Your task to perform on an android device: open chrome privacy settings Image 0: 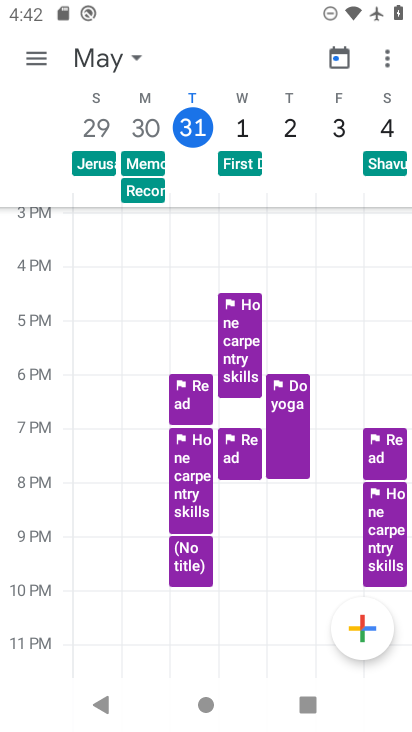
Step 0: press home button
Your task to perform on an android device: open chrome privacy settings Image 1: 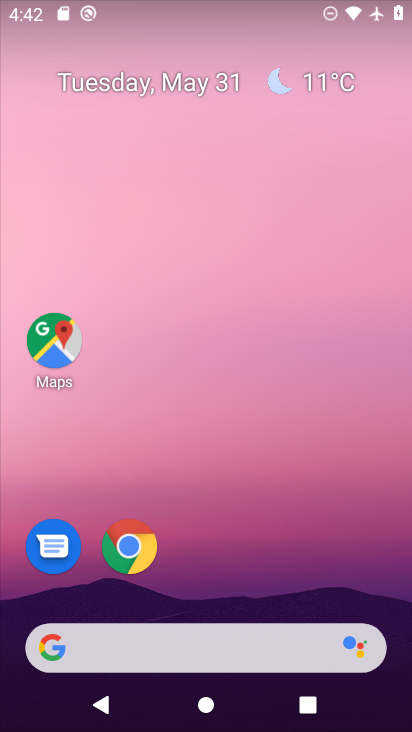
Step 1: click (128, 550)
Your task to perform on an android device: open chrome privacy settings Image 2: 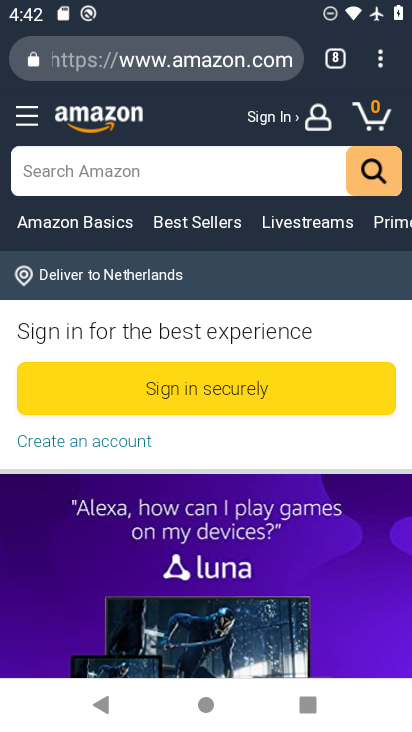
Step 2: click (342, 68)
Your task to perform on an android device: open chrome privacy settings Image 3: 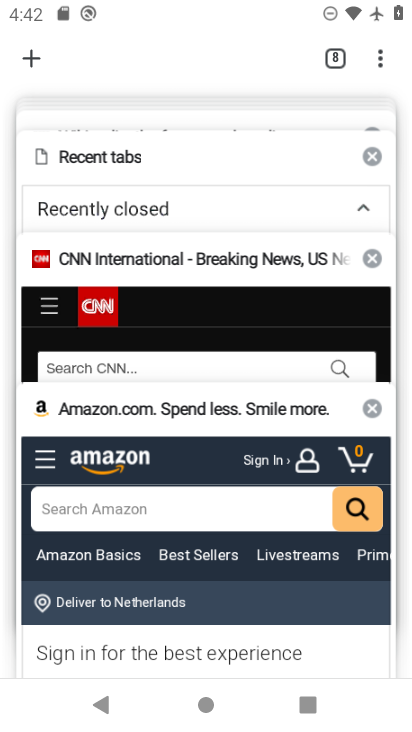
Step 3: click (340, 55)
Your task to perform on an android device: open chrome privacy settings Image 4: 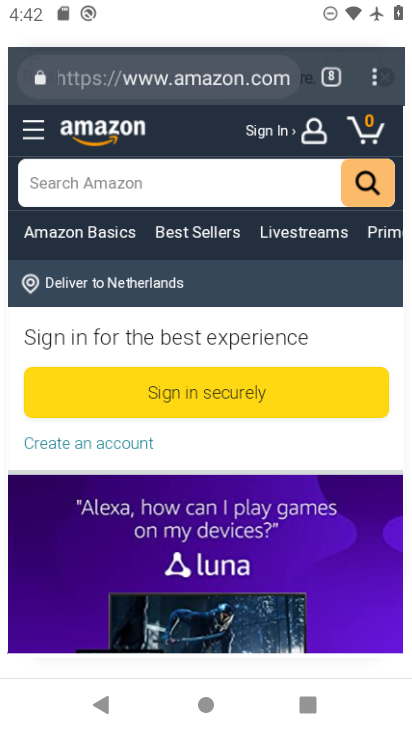
Step 4: click (370, 54)
Your task to perform on an android device: open chrome privacy settings Image 5: 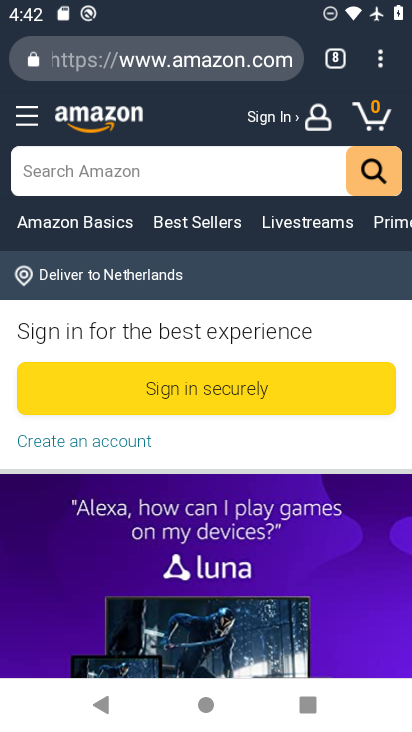
Step 5: click (379, 65)
Your task to perform on an android device: open chrome privacy settings Image 6: 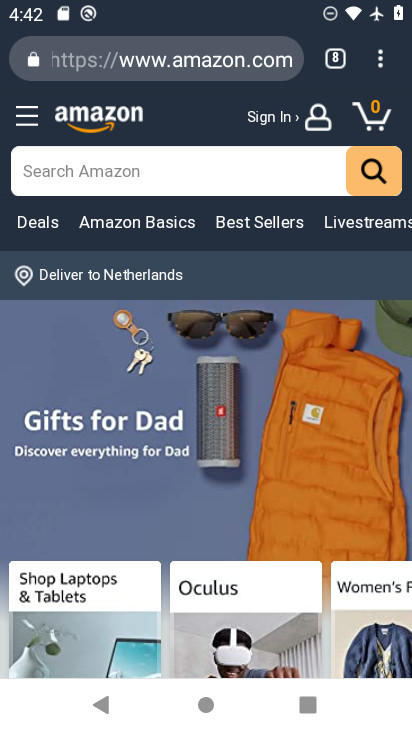
Step 6: click (385, 61)
Your task to perform on an android device: open chrome privacy settings Image 7: 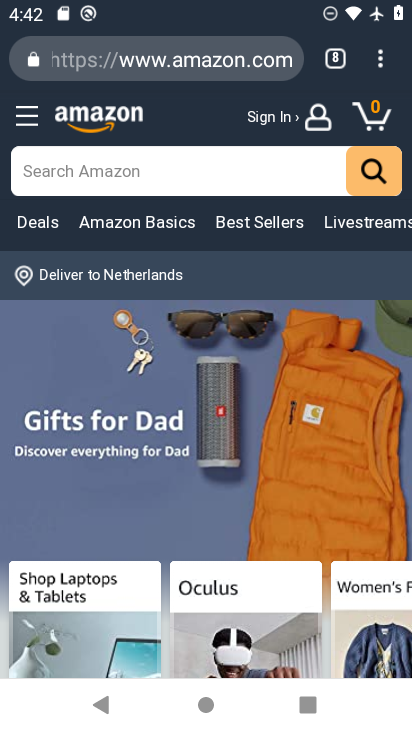
Step 7: click (388, 48)
Your task to perform on an android device: open chrome privacy settings Image 8: 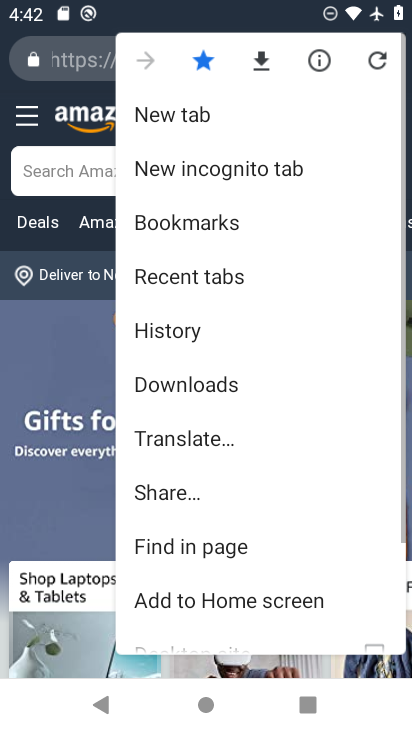
Step 8: drag from (239, 552) to (259, 106)
Your task to perform on an android device: open chrome privacy settings Image 9: 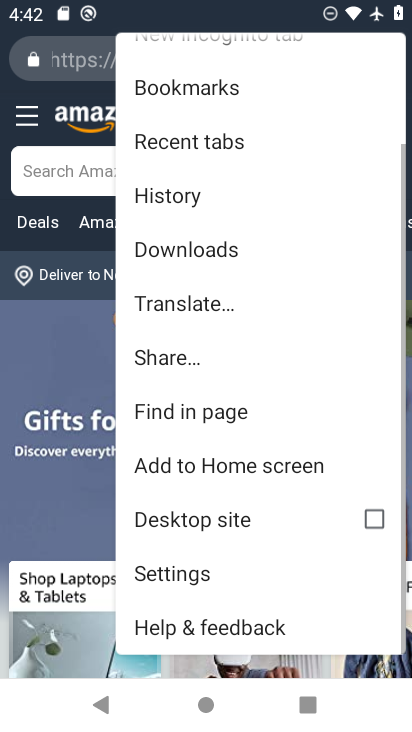
Step 9: click (233, 574)
Your task to perform on an android device: open chrome privacy settings Image 10: 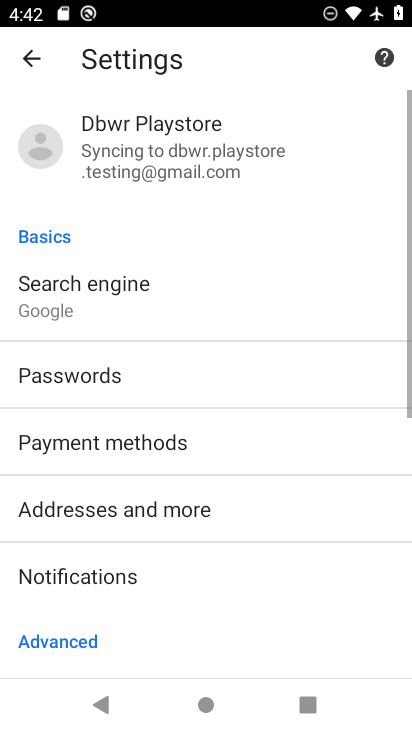
Step 10: drag from (184, 501) to (183, 204)
Your task to perform on an android device: open chrome privacy settings Image 11: 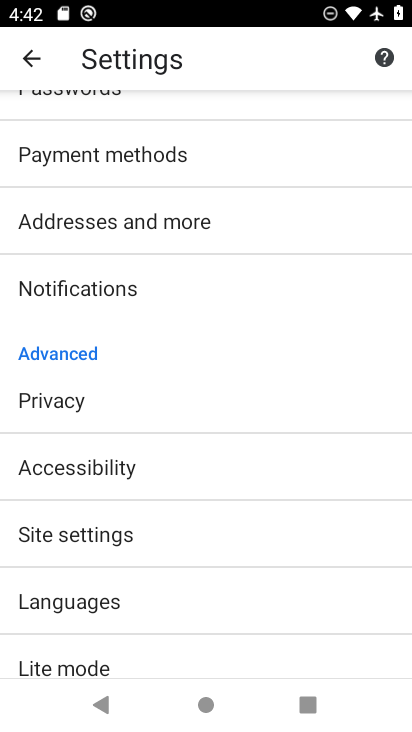
Step 11: click (95, 393)
Your task to perform on an android device: open chrome privacy settings Image 12: 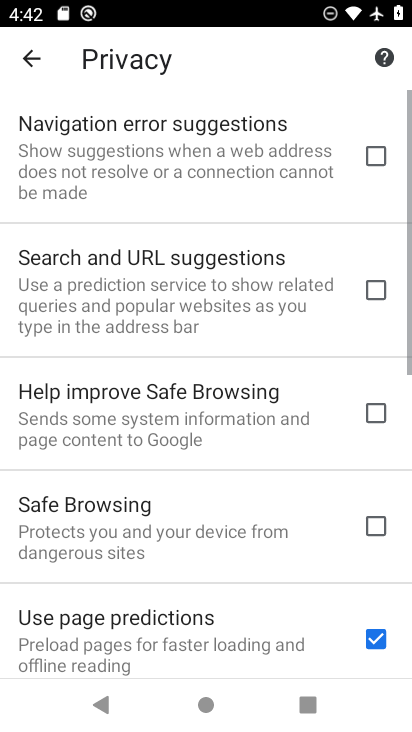
Step 12: task complete